Your task to perform on an android device: Go to Reddit.com Image 0: 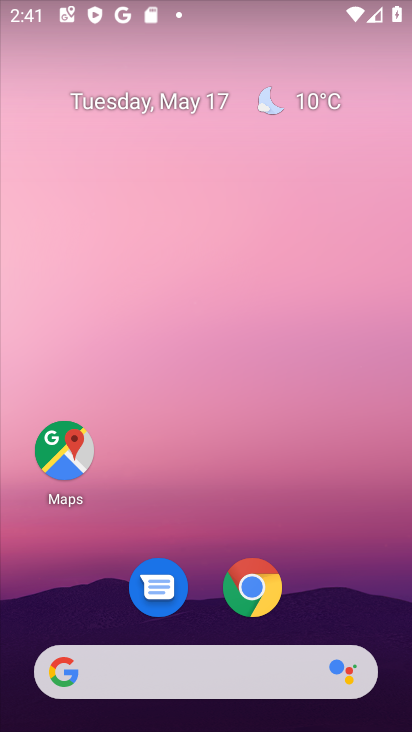
Step 0: drag from (294, 609) to (217, 3)
Your task to perform on an android device: Go to Reddit.com Image 1: 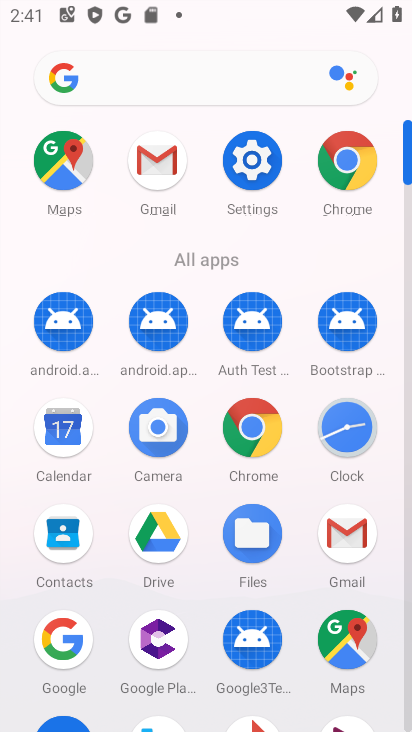
Step 1: drag from (26, 563) to (26, 275)
Your task to perform on an android device: Go to Reddit.com Image 2: 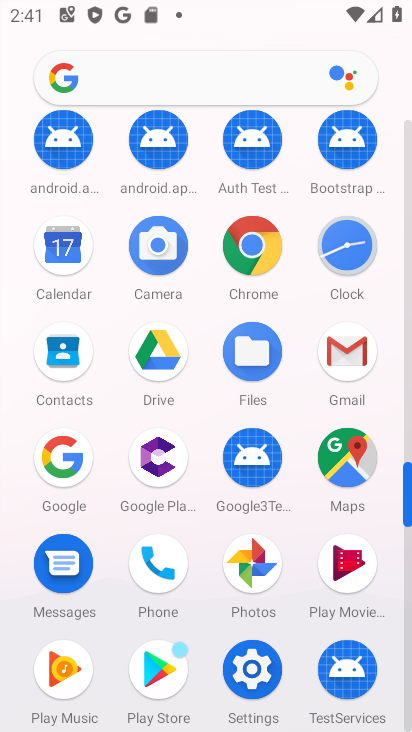
Step 2: click (255, 244)
Your task to perform on an android device: Go to Reddit.com Image 3: 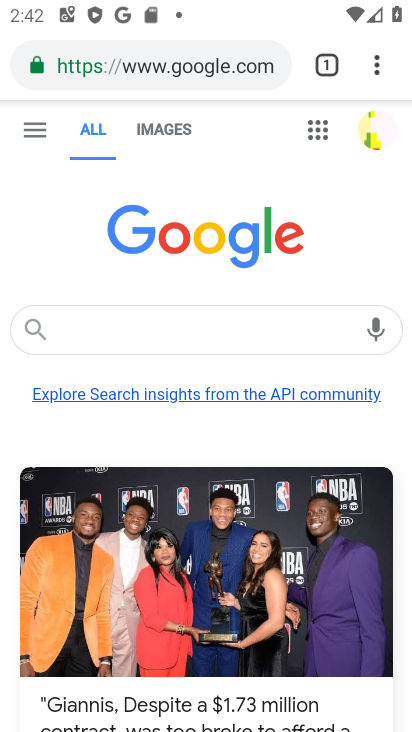
Step 3: click (179, 58)
Your task to perform on an android device: Go to Reddit.com Image 4: 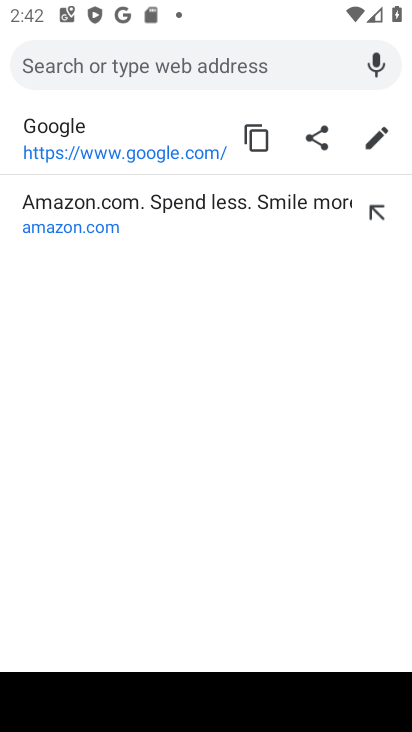
Step 4: type "Reddit.com"
Your task to perform on an android device: Go to Reddit.com Image 5: 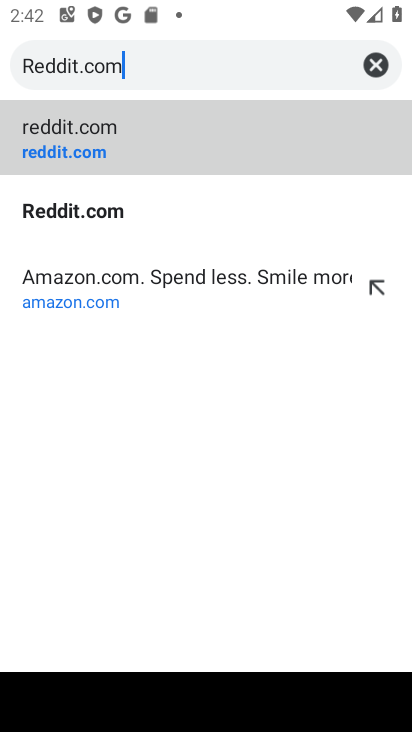
Step 5: type ""
Your task to perform on an android device: Go to Reddit.com Image 6: 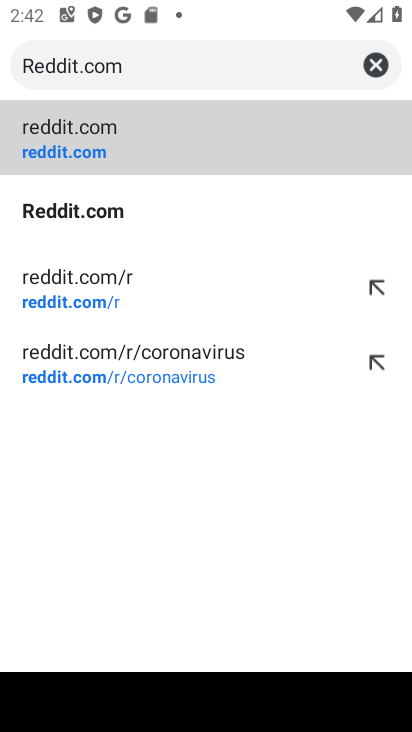
Step 6: click (203, 136)
Your task to perform on an android device: Go to Reddit.com Image 7: 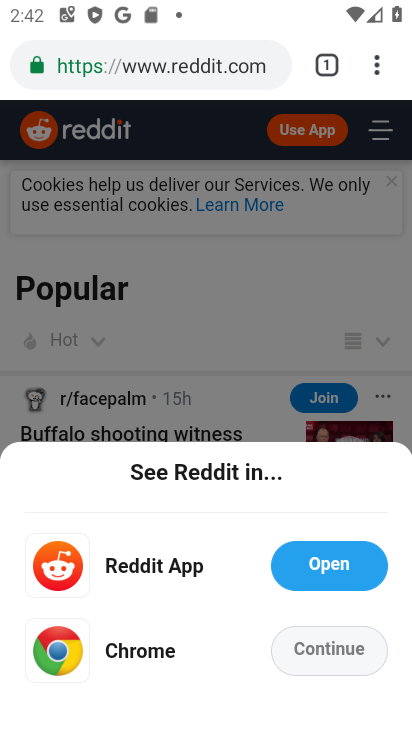
Step 7: task complete